Your task to perform on an android device: stop showing notifications on the lock screen Image 0: 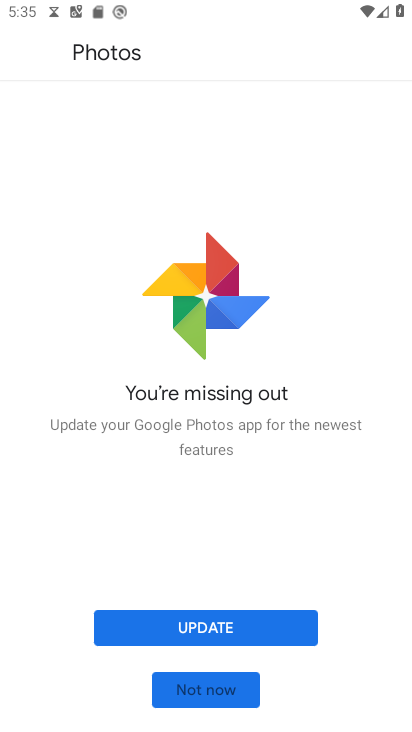
Step 0: press home button
Your task to perform on an android device: stop showing notifications on the lock screen Image 1: 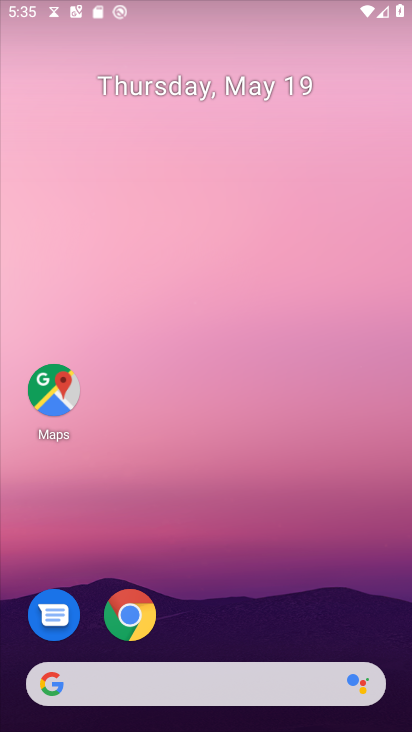
Step 1: drag from (361, 658) to (330, 146)
Your task to perform on an android device: stop showing notifications on the lock screen Image 2: 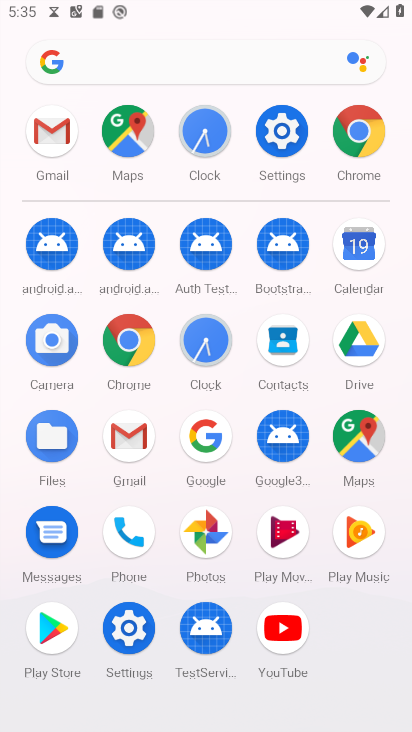
Step 2: click (270, 132)
Your task to perform on an android device: stop showing notifications on the lock screen Image 3: 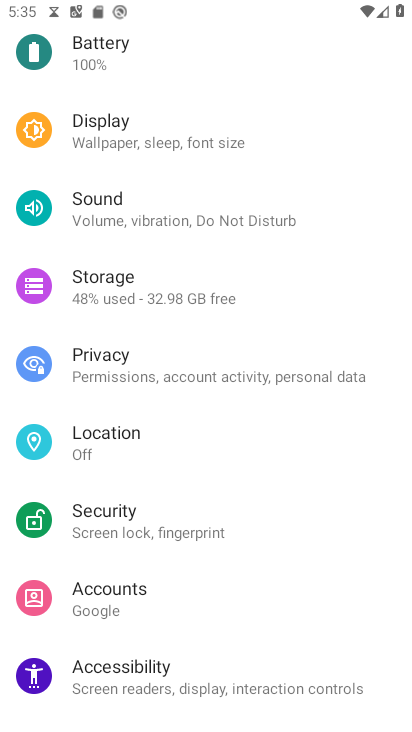
Step 3: drag from (201, 213) to (169, 651)
Your task to perform on an android device: stop showing notifications on the lock screen Image 4: 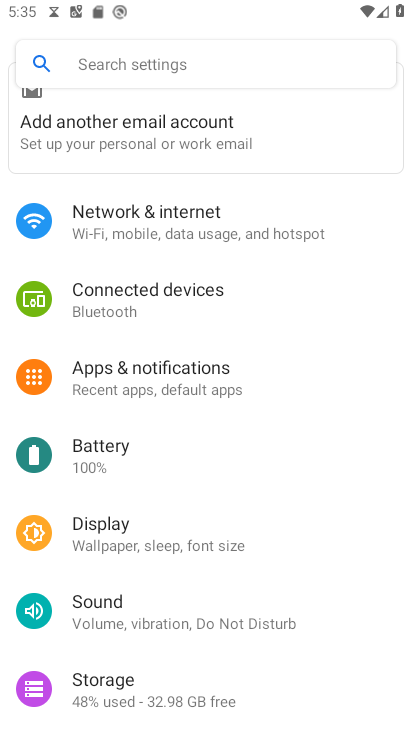
Step 4: click (141, 383)
Your task to perform on an android device: stop showing notifications on the lock screen Image 5: 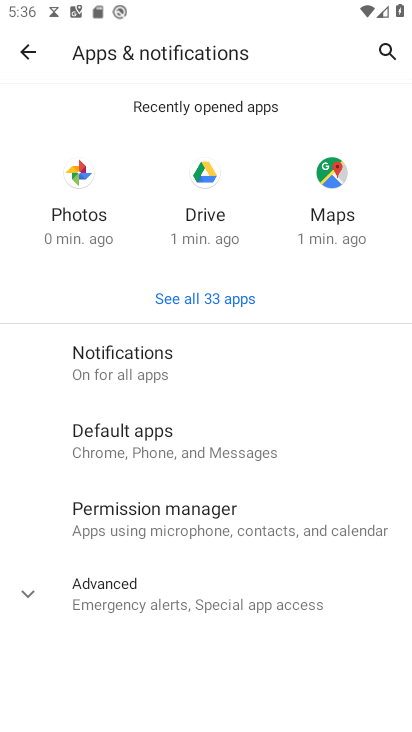
Step 5: click (171, 375)
Your task to perform on an android device: stop showing notifications on the lock screen Image 6: 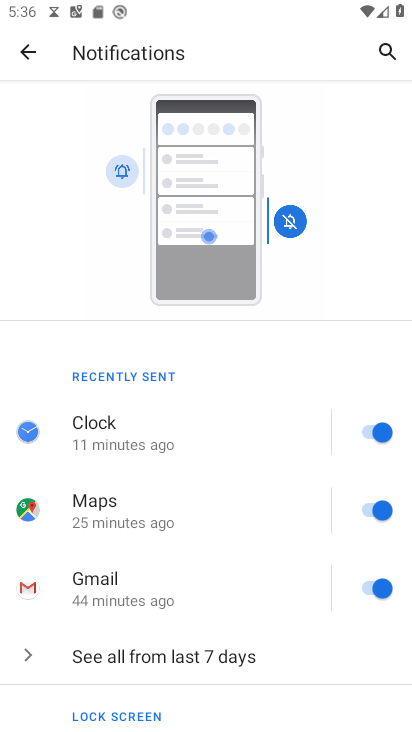
Step 6: drag from (237, 680) to (220, 80)
Your task to perform on an android device: stop showing notifications on the lock screen Image 7: 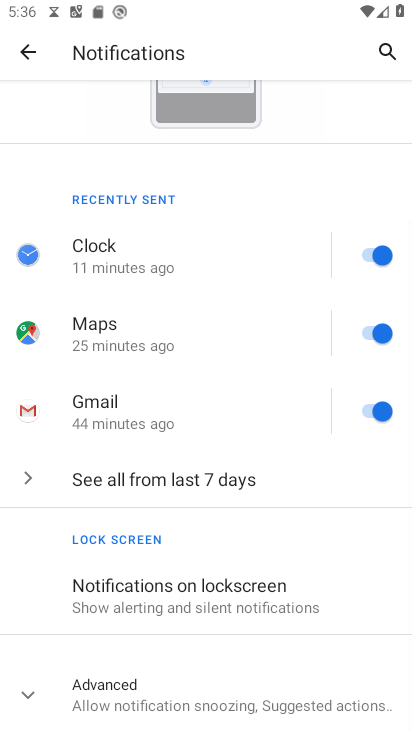
Step 7: click (235, 588)
Your task to perform on an android device: stop showing notifications on the lock screen Image 8: 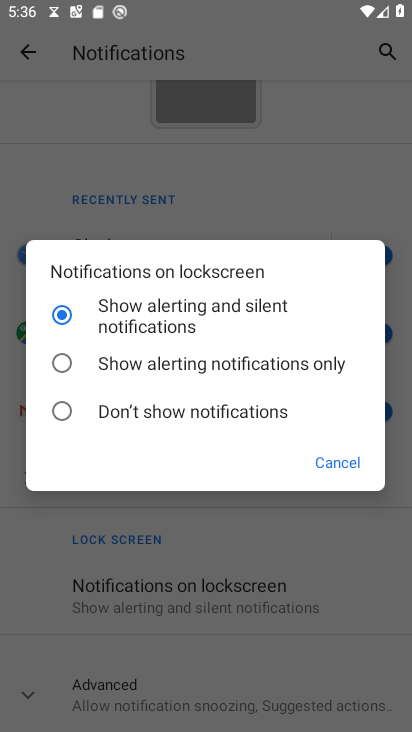
Step 8: click (101, 408)
Your task to perform on an android device: stop showing notifications on the lock screen Image 9: 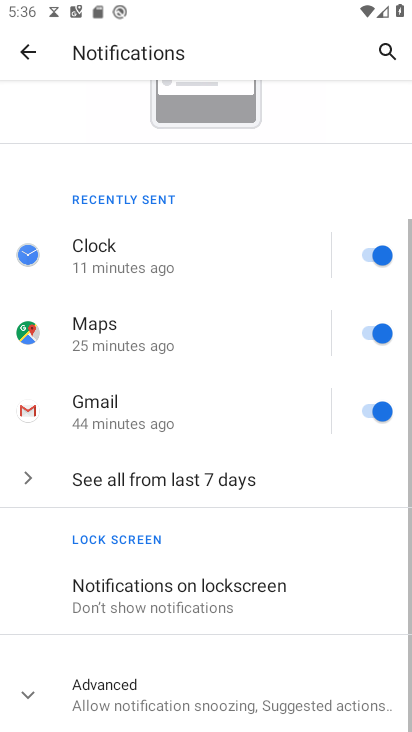
Step 9: task complete